Your task to perform on an android device: Search for vegetarian restaurants on Maps Image 0: 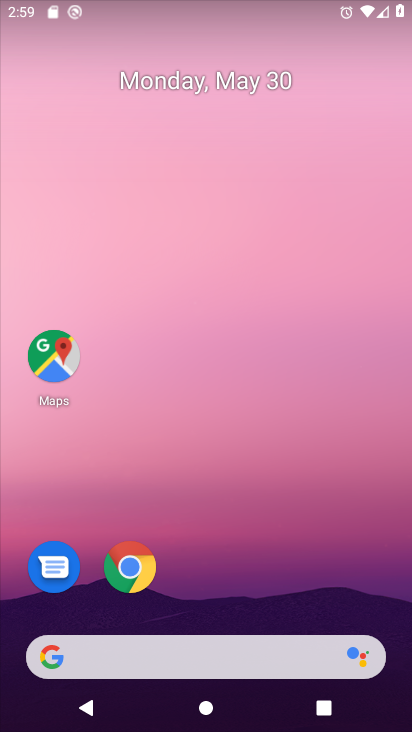
Step 0: click (47, 346)
Your task to perform on an android device: Search for vegetarian restaurants on Maps Image 1: 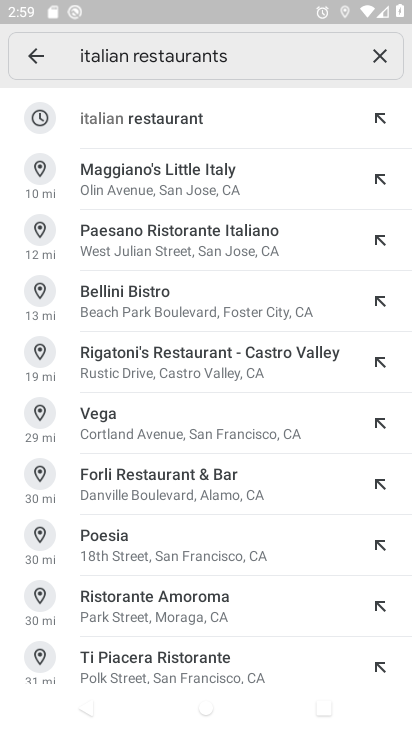
Step 1: click (377, 52)
Your task to perform on an android device: Search for vegetarian restaurants on Maps Image 2: 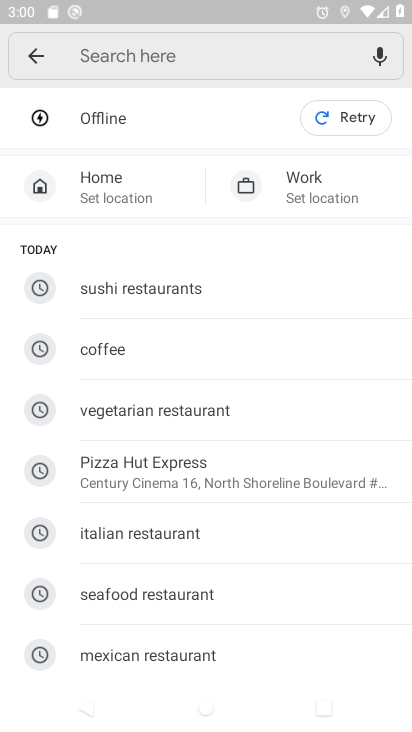
Step 2: click (195, 414)
Your task to perform on an android device: Search for vegetarian restaurants on Maps Image 3: 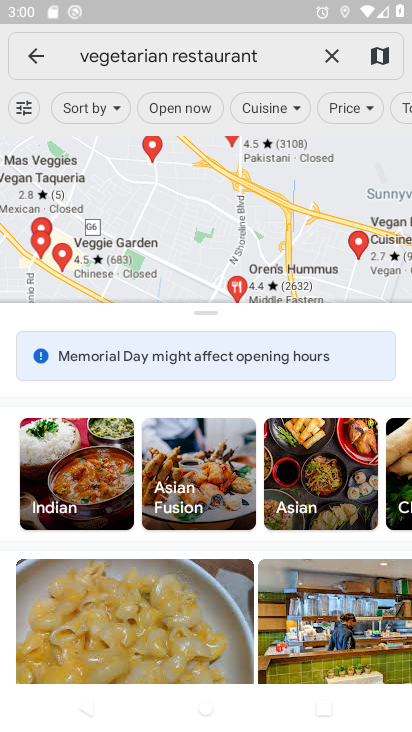
Step 3: task complete